Your task to perform on an android device: Go to privacy settings Image 0: 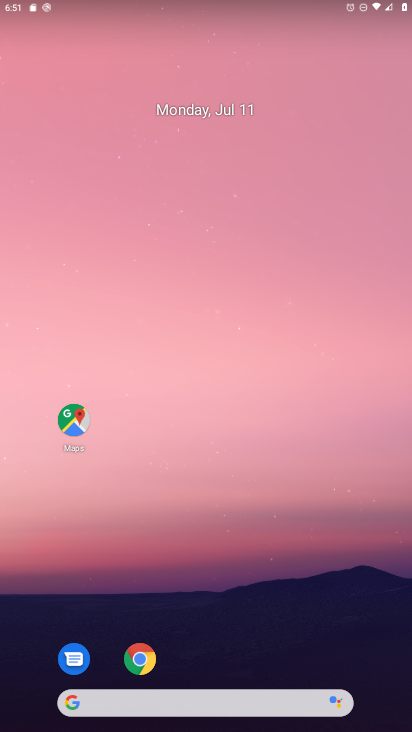
Step 0: drag from (365, 635) to (323, 165)
Your task to perform on an android device: Go to privacy settings Image 1: 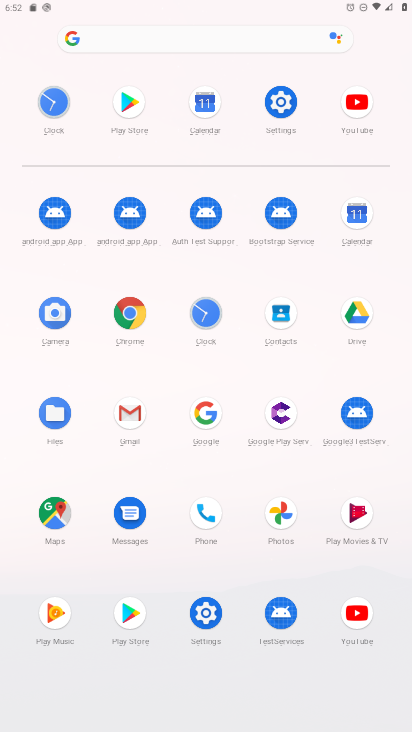
Step 1: click (202, 614)
Your task to perform on an android device: Go to privacy settings Image 2: 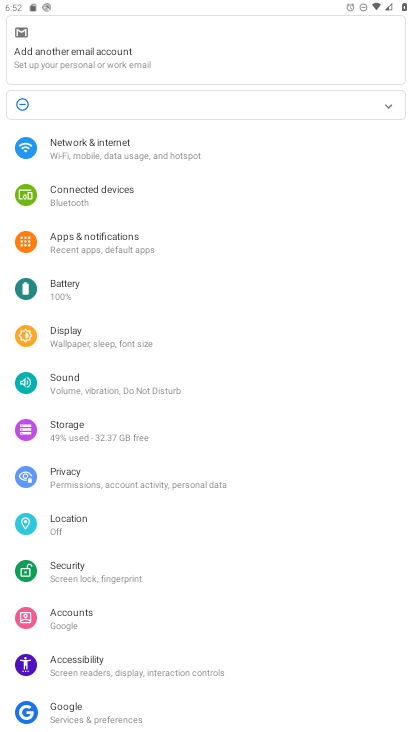
Step 2: click (77, 475)
Your task to perform on an android device: Go to privacy settings Image 3: 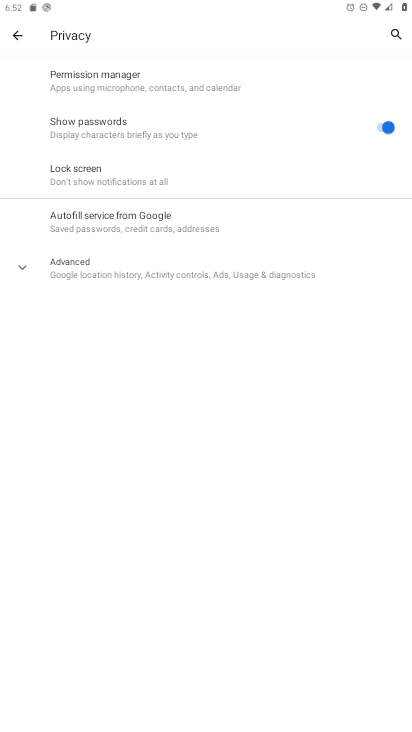
Step 3: click (28, 267)
Your task to perform on an android device: Go to privacy settings Image 4: 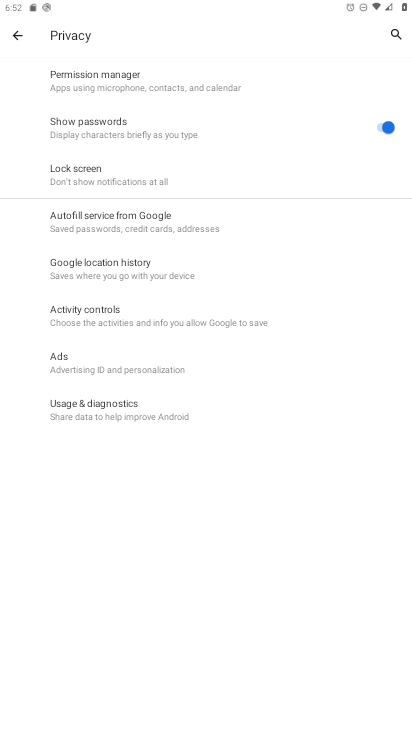
Step 4: task complete